Your task to perform on an android device: toggle show notifications on the lock screen Image 0: 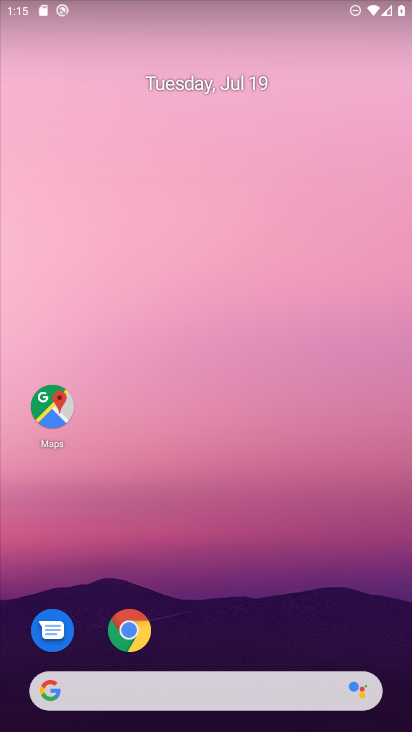
Step 0: drag from (148, 678) to (281, 168)
Your task to perform on an android device: toggle show notifications on the lock screen Image 1: 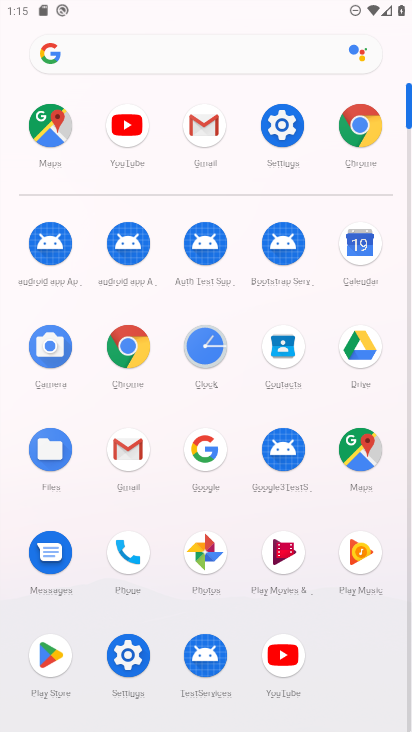
Step 1: click (280, 117)
Your task to perform on an android device: toggle show notifications on the lock screen Image 2: 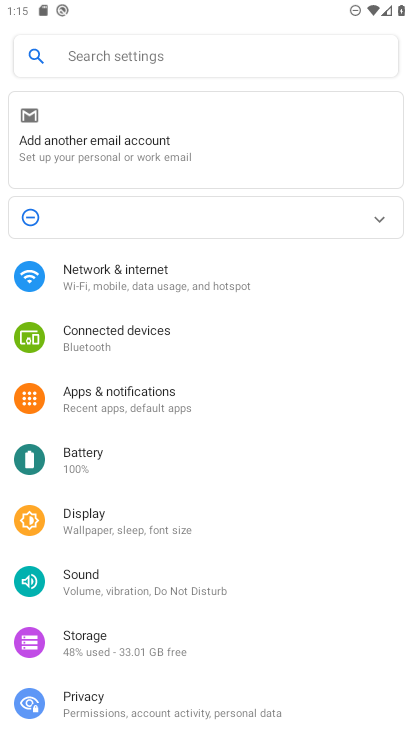
Step 2: click (120, 394)
Your task to perform on an android device: toggle show notifications on the lock screen Image 3: 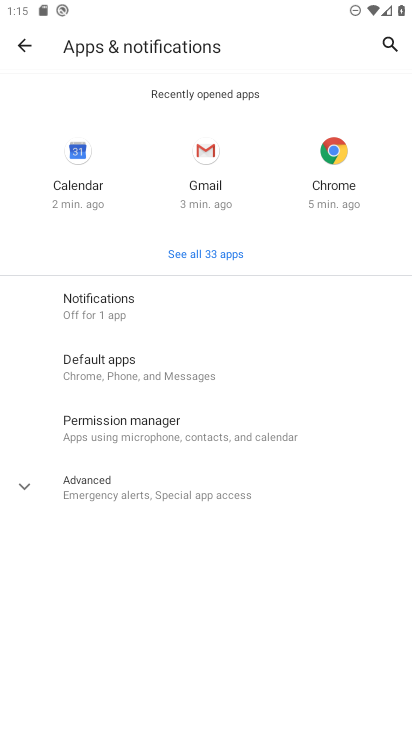
Step 3: click (103, 304)
Your task to perform on an android device: toggle show notifications on the lock screen Image 4: 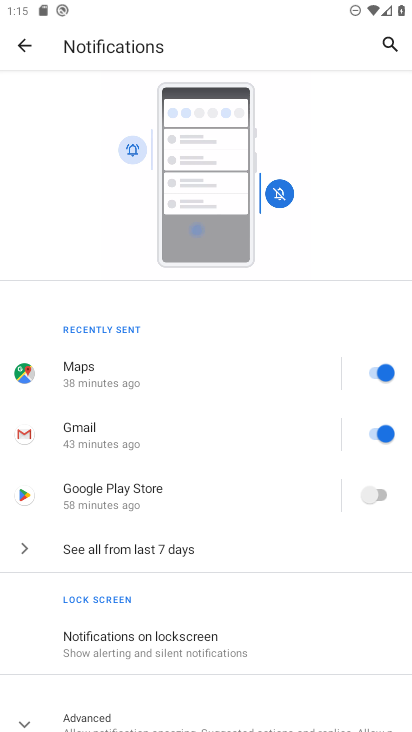
Step 4: click (188, 650)
Your task to perform on an android device: toggle show notifications on the lock screen Image 5: 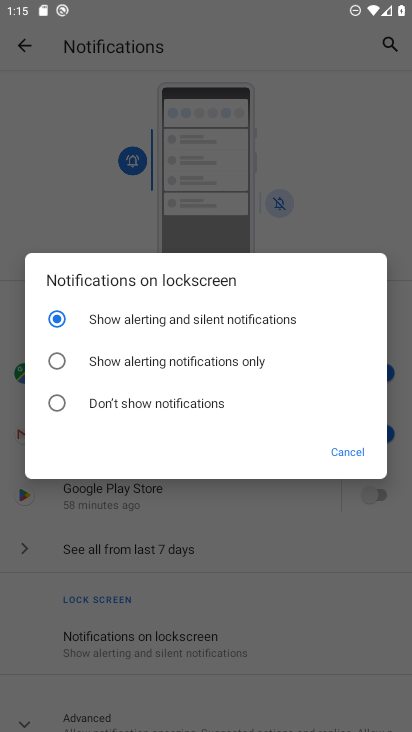
Step 5: click (59, 404)
Your task to perform on an android device: toggle show notifications on the lock screen Image 6: 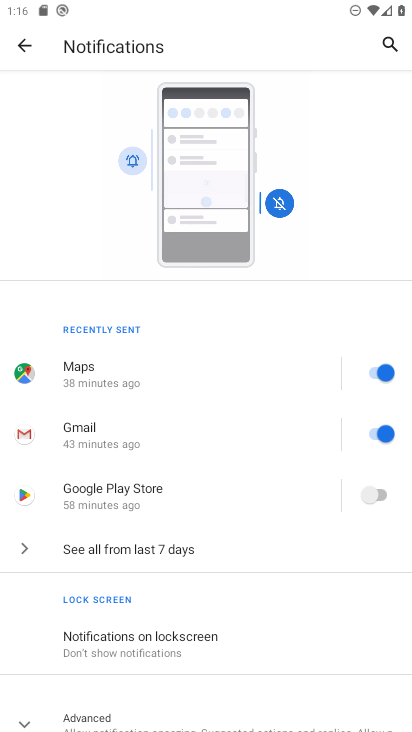
Step 6: task complete